Your task to perform on an android device: Search for "rayovac triple a" on amazon, select the first entry, and add it to the cart. Image 0: 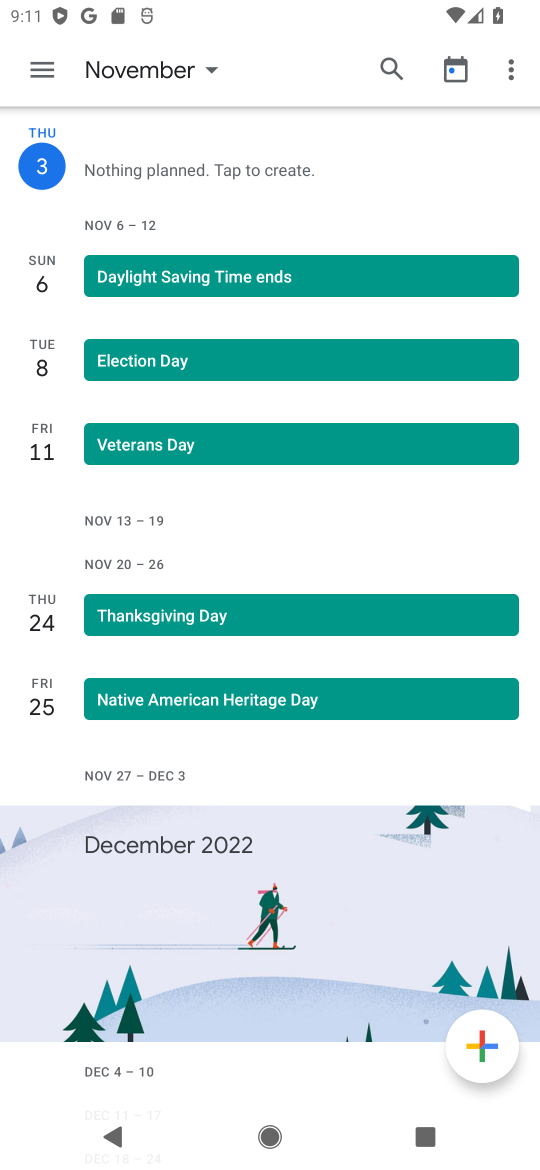
Step 0: press home button
Your task to perform on an android device: Search for "rayovac triple a" on amazon, select the first entry, and add it to the cart. Image 1: 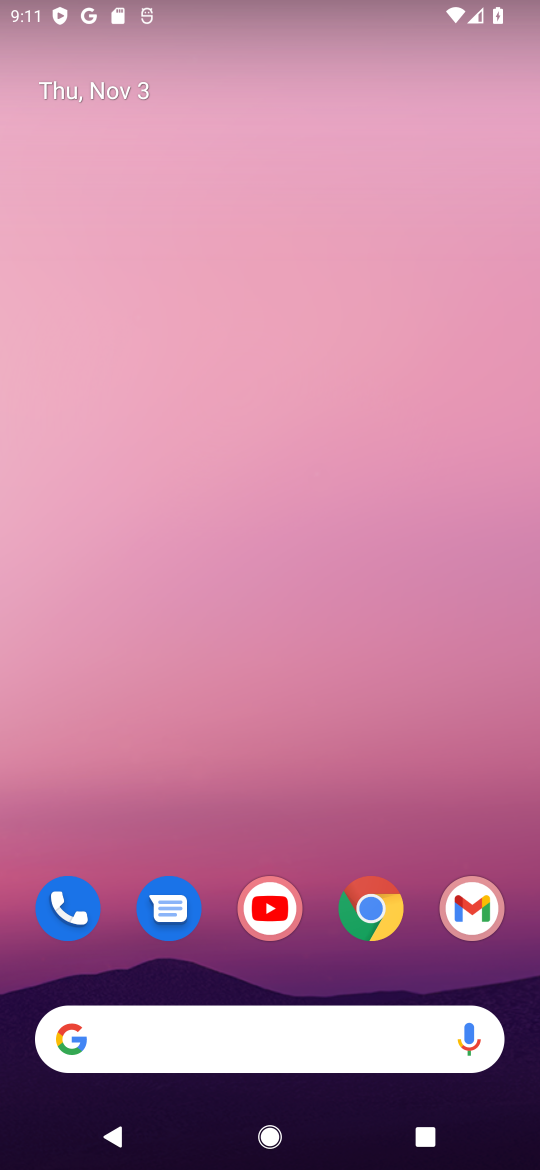
Step 1: click (364, 897)
Your task to perform on an android device: Search for "rayovac triple a" on amazon, select the first entry, and add it to the cart. Image 2: 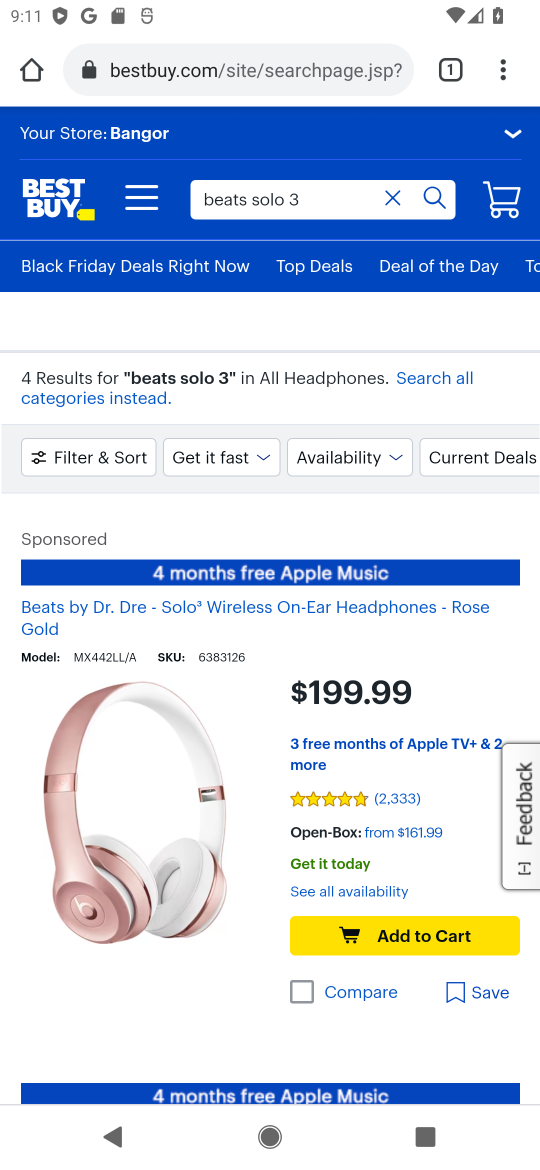
Step 2: click (25, 72)
Your task to perform on an android device: Search for "rayovac triple a" on amazon, select the first entry, and add it to the cart. Image 3: 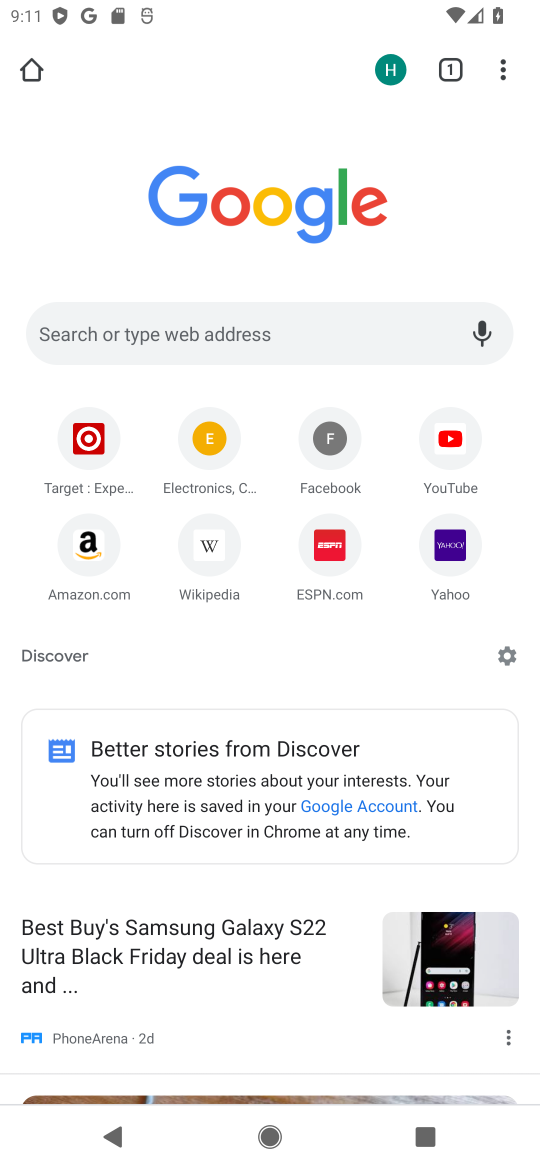
Step 3: click (102, 547)
Your task to perform on an android device: Search for "rayovac triple a" on amazon, select the first entry, and add it to the cart. Image 4: 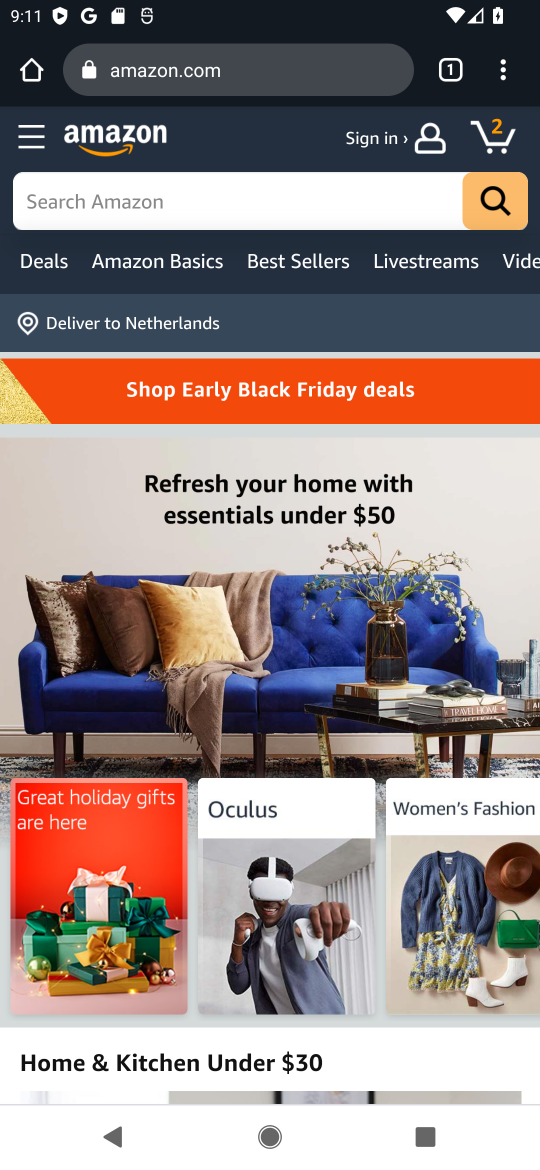
Step 4: type "rayovac triple a"
Your task to perform on an android device: Search for "rayovac triple a" on amazon, select the first entry, and add it to the cart. Image 5: 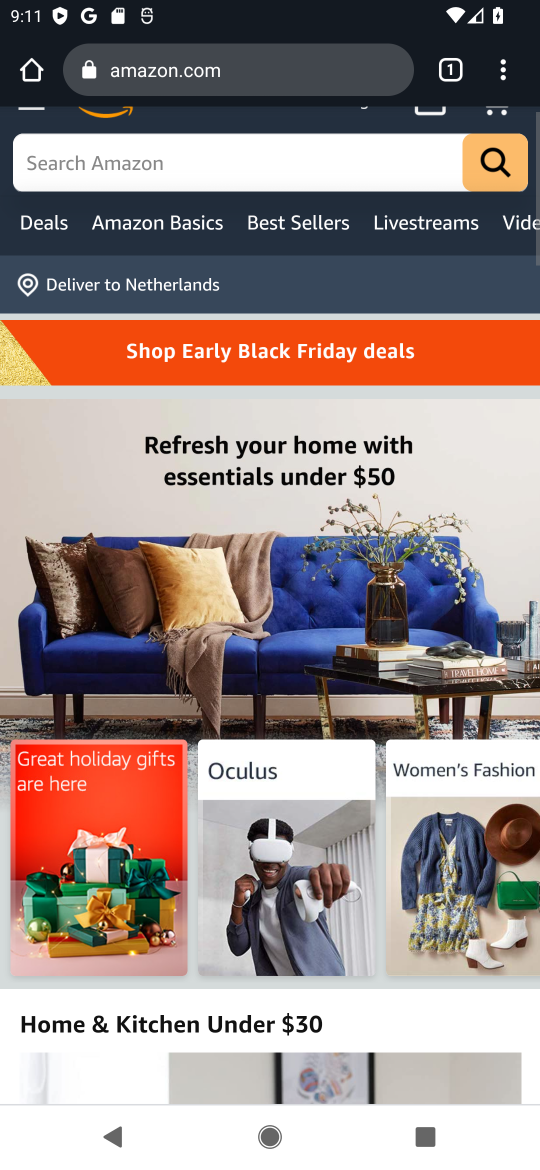
Step 5: press enter
Your task to perform on an android device: Search for "rayovac triple a" on amazon, select the first entry, and add it to the cart. Image 6: 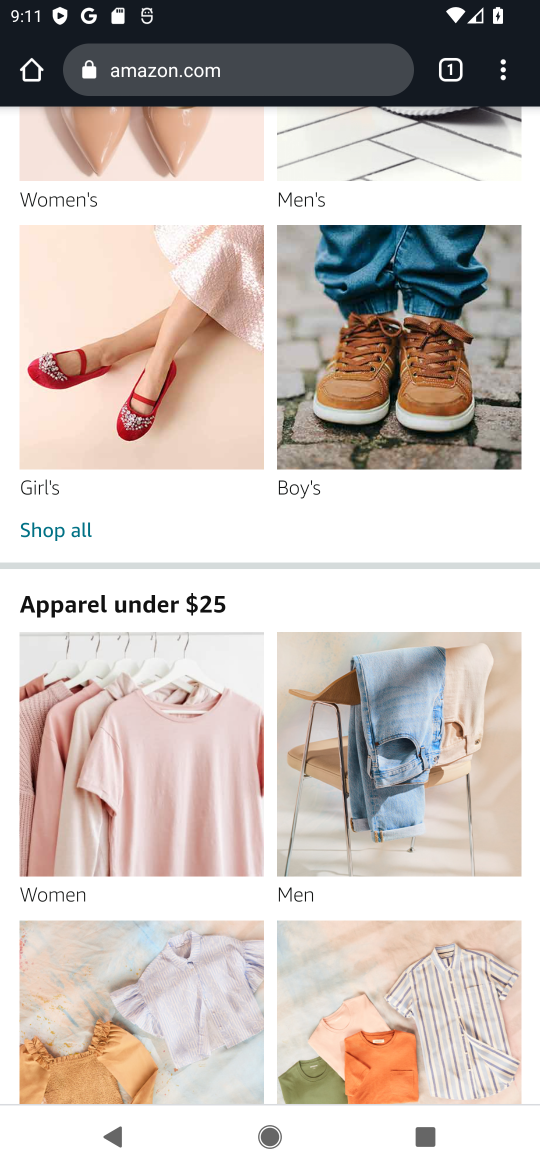
Step 6: press back button
Your task to perform on an android device: Search for "rayovac triple a" on amazon, select the first entry, and add it to the cart. Image 7: 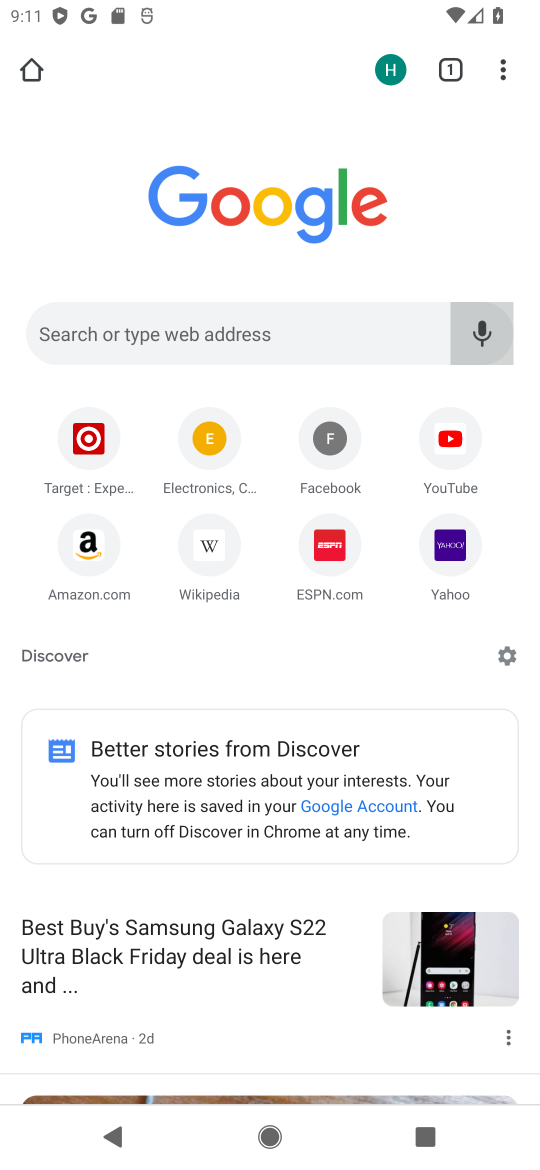
Step 7: click (93, 543)
Your task to perform on an android device: Search for "rayovac triple a" on amazon, select the first entry, and add it to the cart. Image 8: 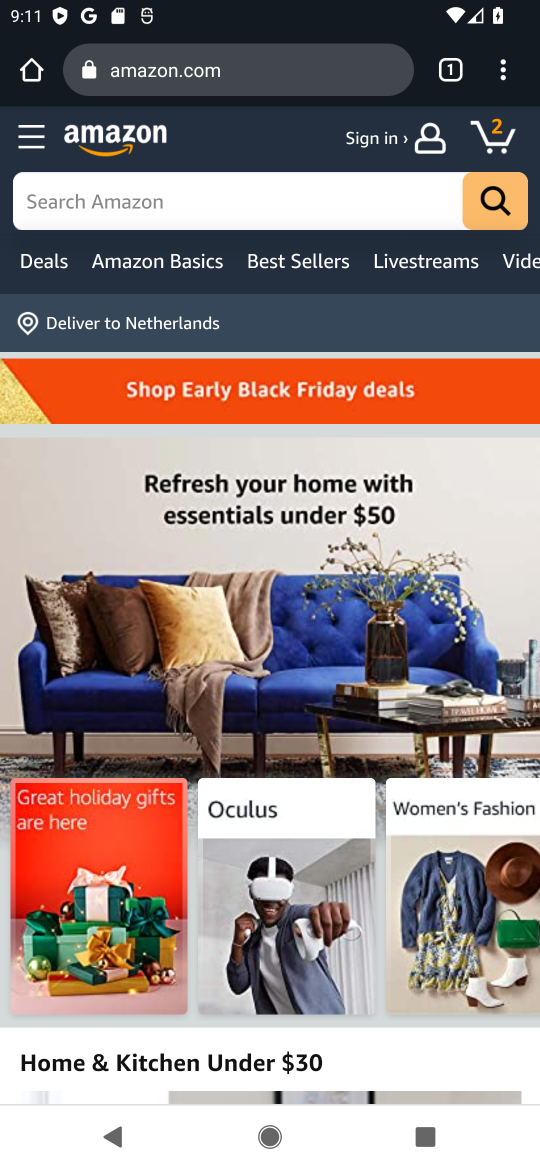
Step 8: click (238, 202)
Your task to perform on an android device: Search for "rayovac triple a" on amazon, select the first entry, and add it to the cart. Image 9: 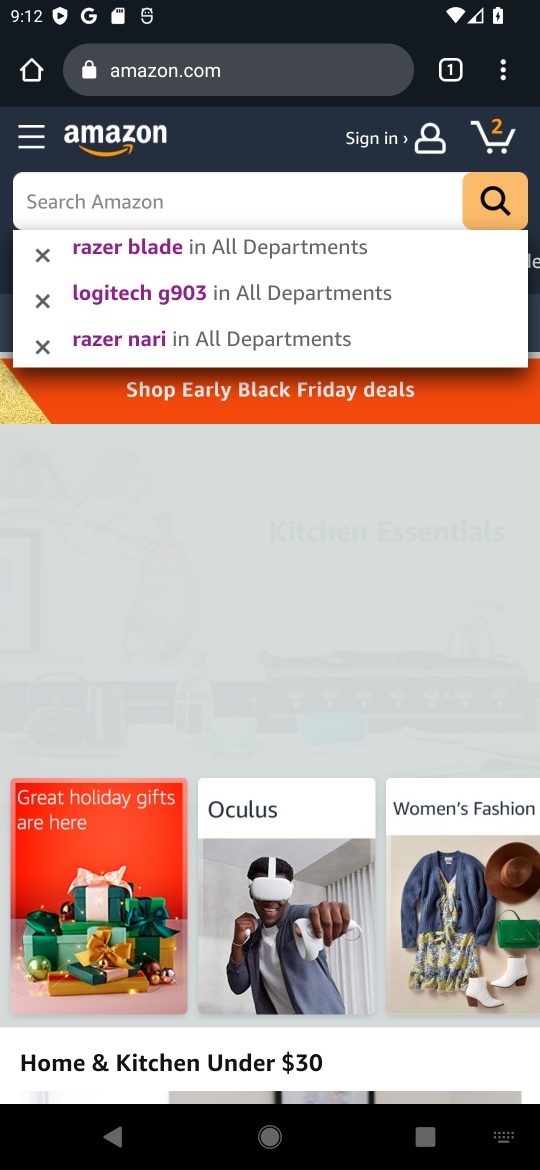
Step 9: type "rayovac triple a"
Your task to perform on an android device: Search for "rayovac triple a" on amazon, select the first entry, and add it to the cart. Image 10: 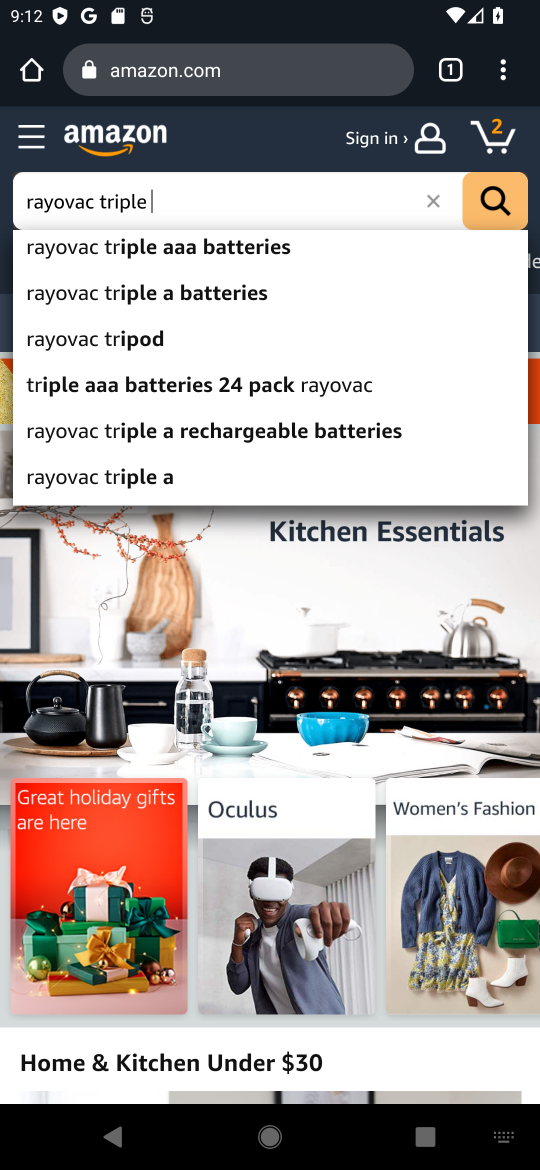
Step 10: press enter
Your task to perform on an android device: Search for "rayovac triple a" on amazon, select the first entry, and add it to the cart. Image 11: 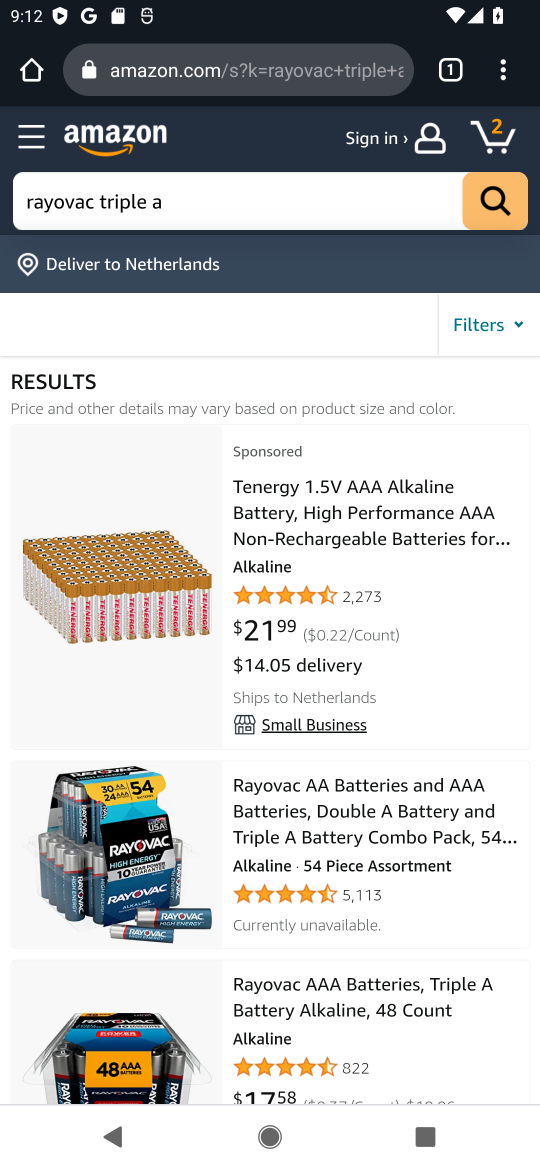
Step 11: click (135, 894)
Your task to perform on an android device: Search for "rayovac triple a" on amazon, select the first entry, and add it to the cart. Image 12: 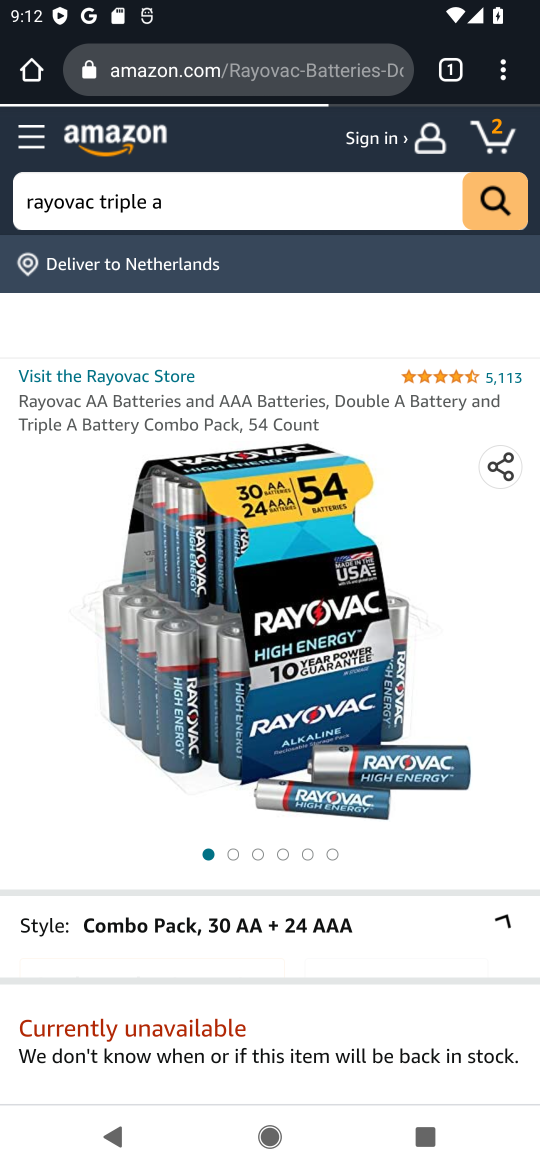
Step 12: press back button
Your task to perform on an android device: Search for "rayovac triple a" on amazon, select the first entry, and add it to the cart. Image 13: 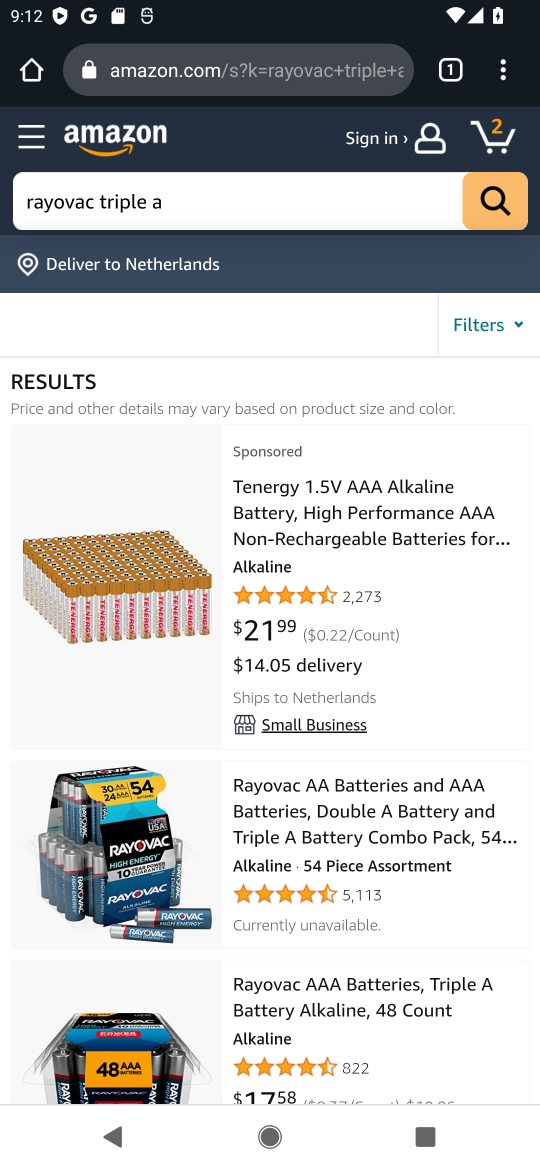
Step 13: click (145, 1027)
Your task to perform on an android device: Search for "rayovac triple a" on amazon, select the first entry, and add it to the cart. Image 14: 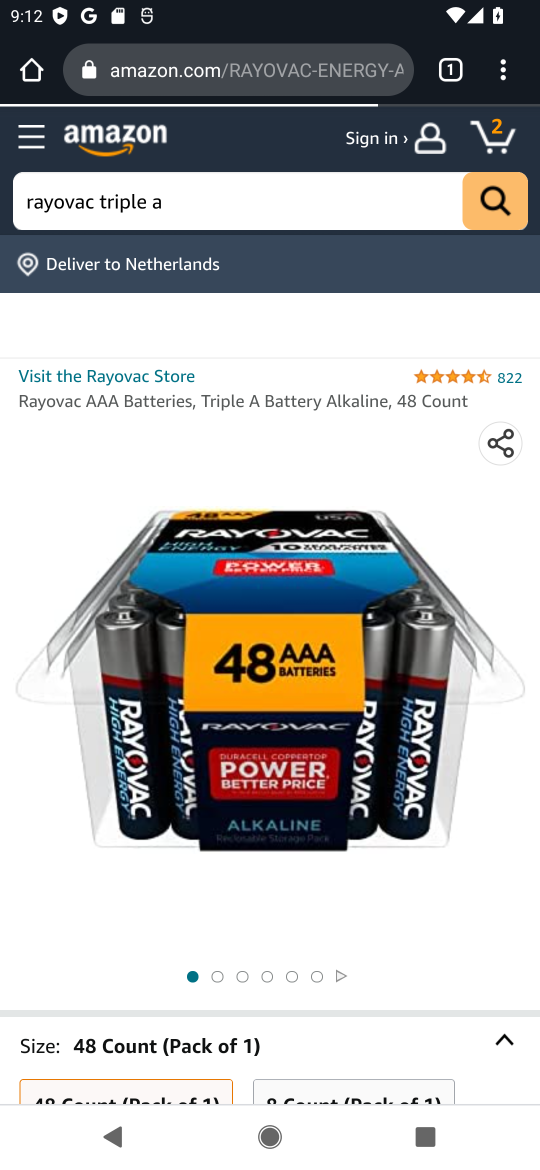
Step 14: drag from (427, 638) to (481, 191)
Your task to perform on an android device: Search for "rayovac triple a" on amazon, select the first entry, and add it to the cart. Image 15: 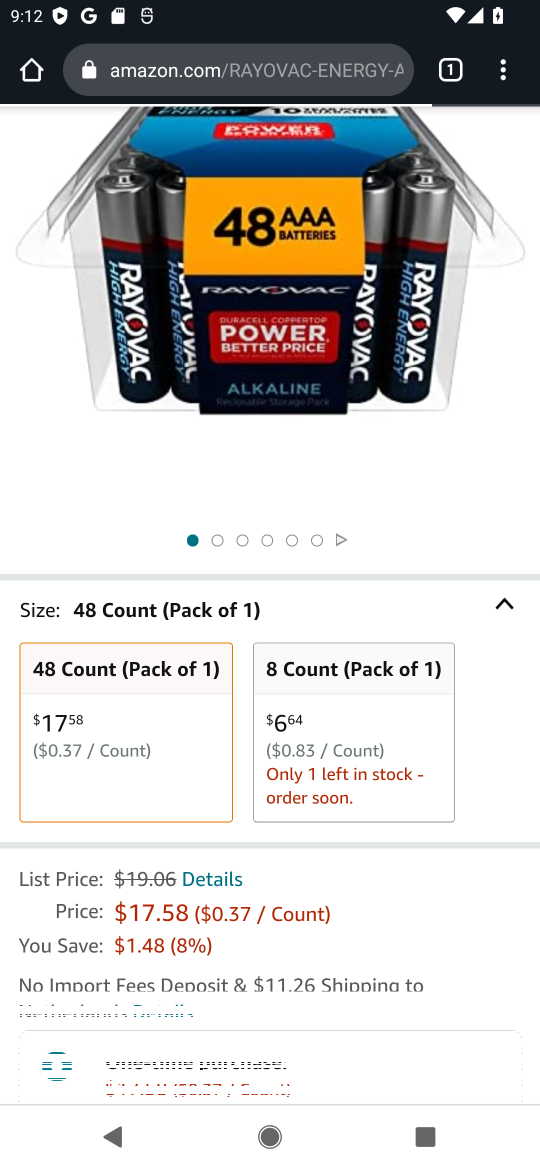
Step 15: drag from (431, 984) to (398, 371)
Your task to perform on an android device: Search for "rayovac triple a" on amazon, select the first entry, and add it to the cart. Image 16: 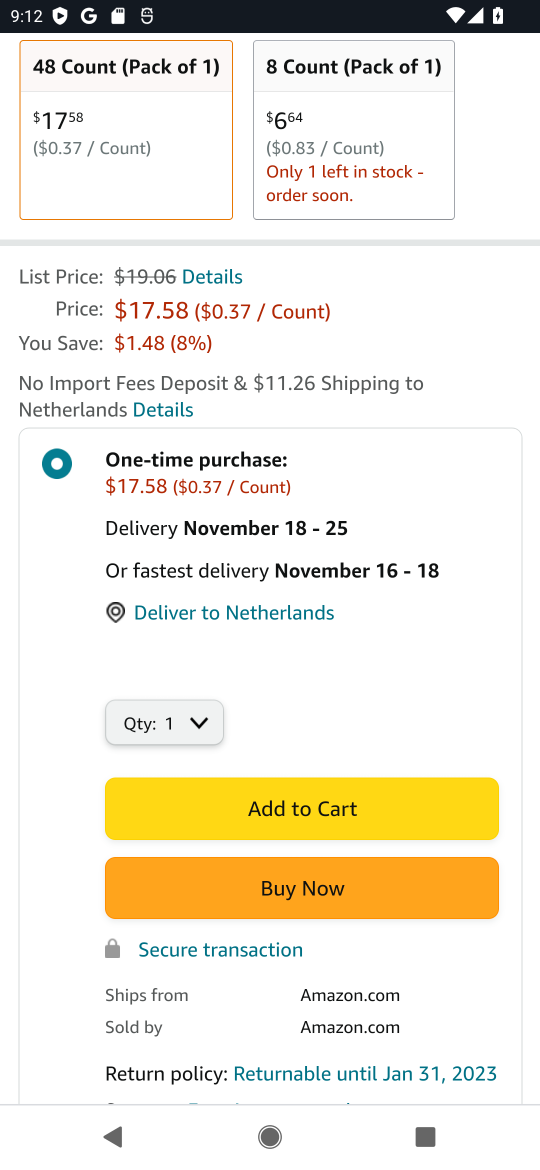
Step 16: click (393, 800)
Your task to perform on an android device: Search for "rayovac triple a" on amazon, select the first entry, and add it to the cart. Image 17: 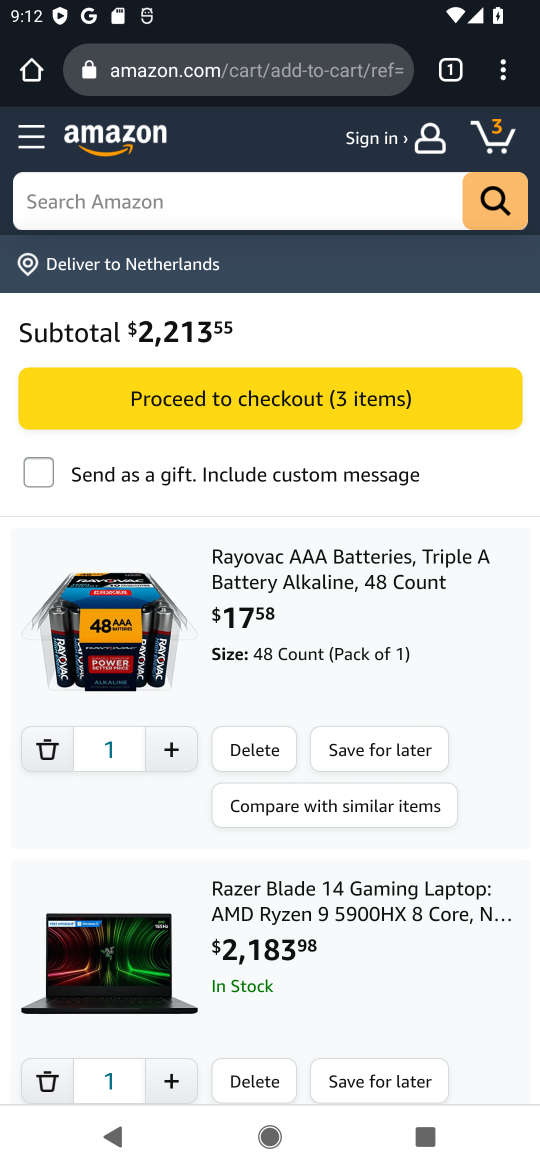
Step 17: task complete